Your task to perform on an android device: open sync settings in chrome Image 0: 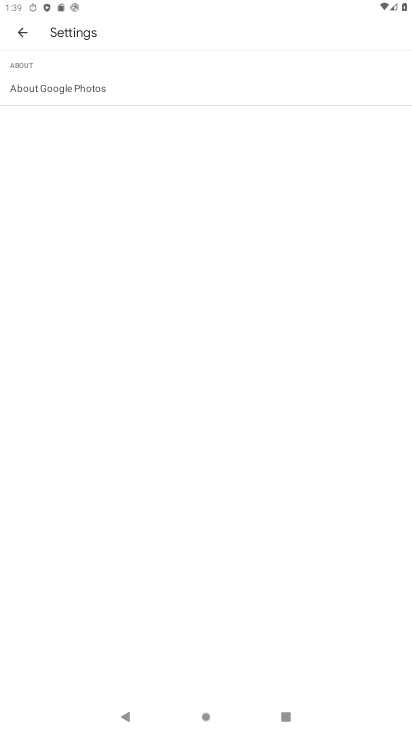
Step 0: press home button
Your task to perform on an android device: open sync settings in chrome Image 1: 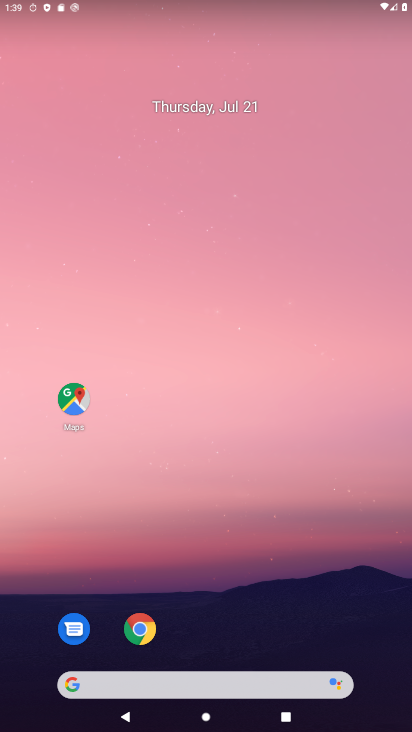
Step 1: drag from (30, 704) to (295, 26)
Your task to perform on an android device: open sync settings in chrome Image 2: 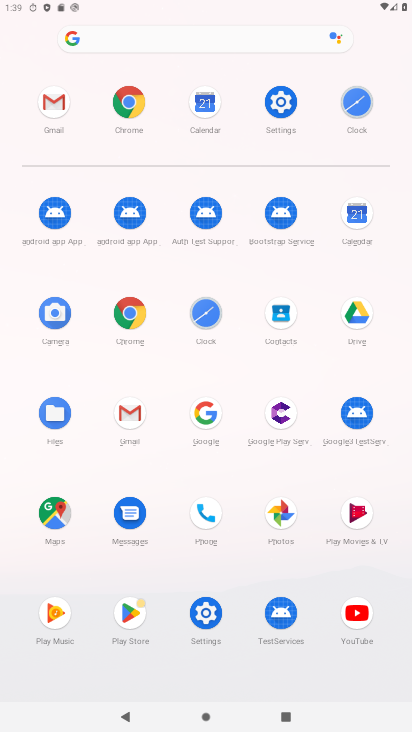
Step 2: click (212, 619)
Your task to perform on an android device: open sync settings in chrome Image 3: 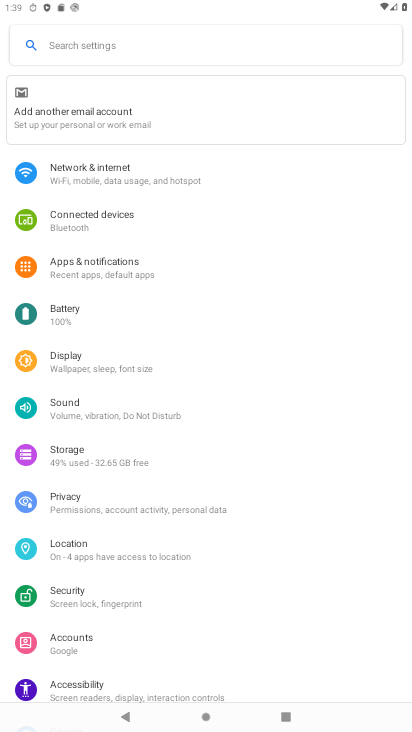
Step 3: press home button
Your task to perform on an android device: open sync settings in chrome Image 4: 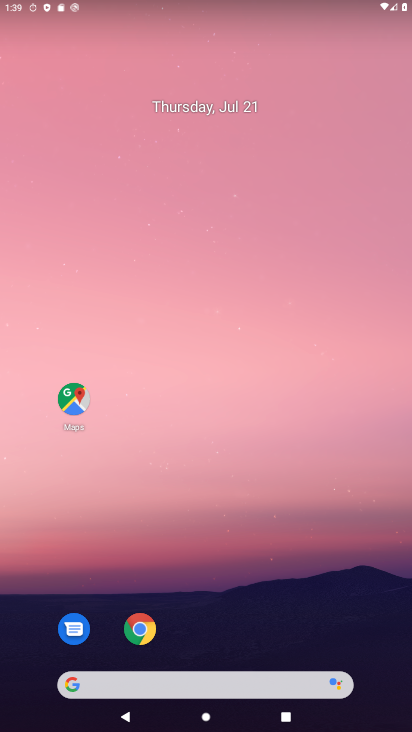
Step 4: click (145, 633)
Your task to perform on an android device: open sync settings in chrome Image 5: 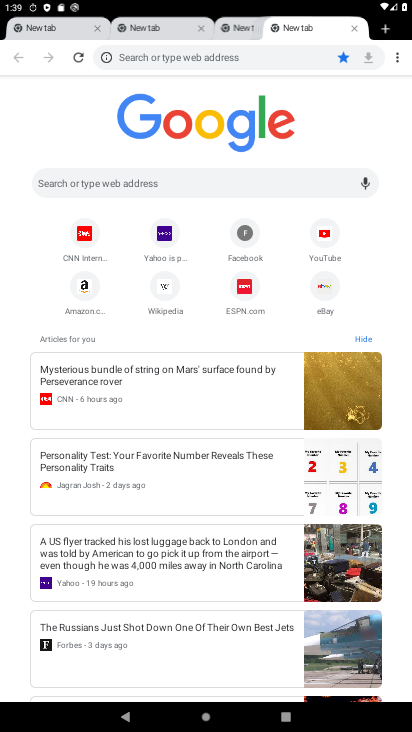
Step 5: click (397, 52)
Your task to perform on an android device: open sync settings in chrome Image 6: 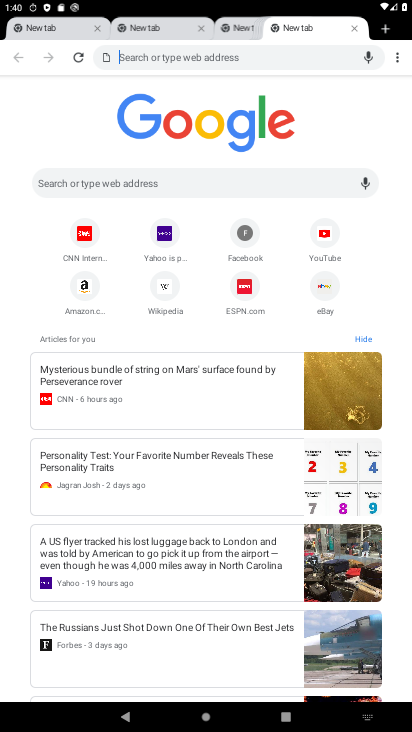
Step 6: task complete